Your task to perform on an android device: set an alarm Image 0: 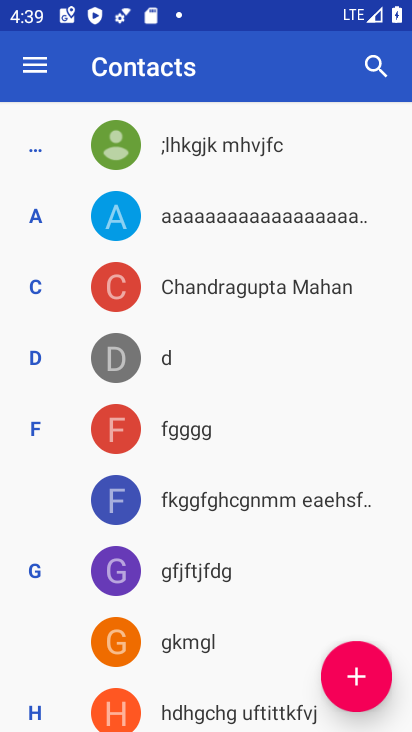
Step 0: press home button
Your task to perform on an android device: set an alarm Image 1: 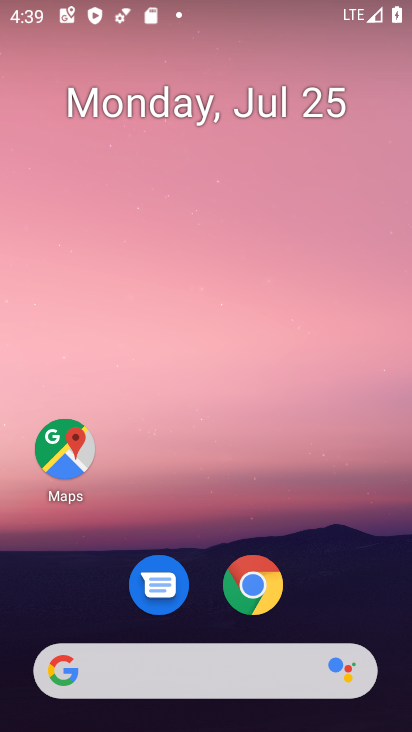
Step 1: drag from (325, 585) to (315, 68)
Your task to perform on an android device: set an alarm Image 2: 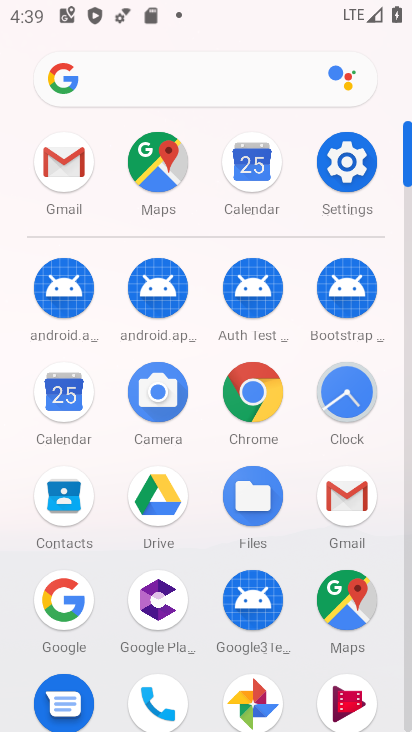
Step 2: click (332, 394)
Your task to perform on an android device: set an alarm Image 3: 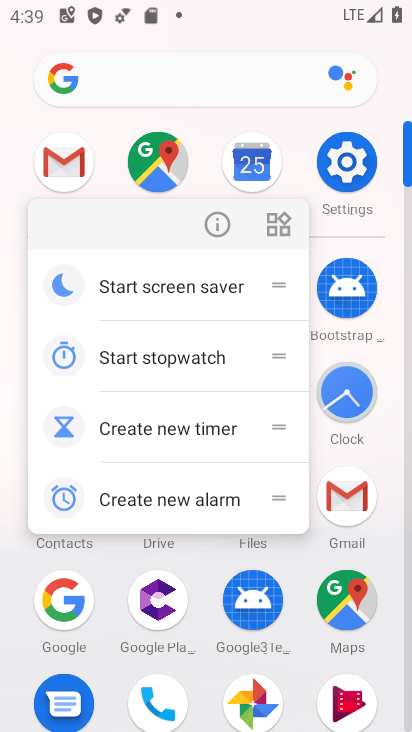
Step 3: click (338, 384)
Your task to perform on an android device: set an alarm Image 4: 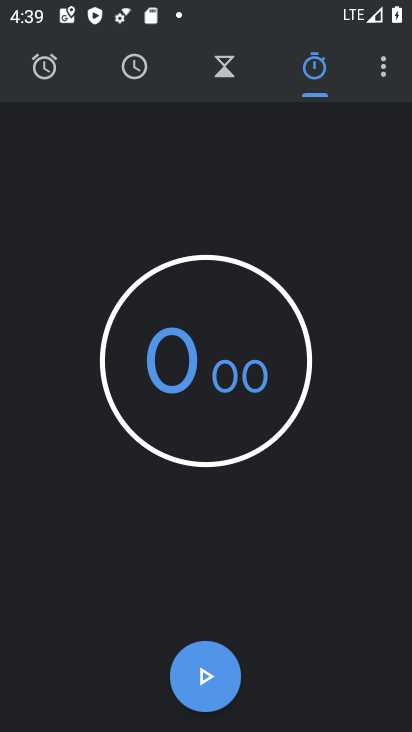
Step 4: click (46, 64)
Your task to perform on an android device: set an alarm Image 5: 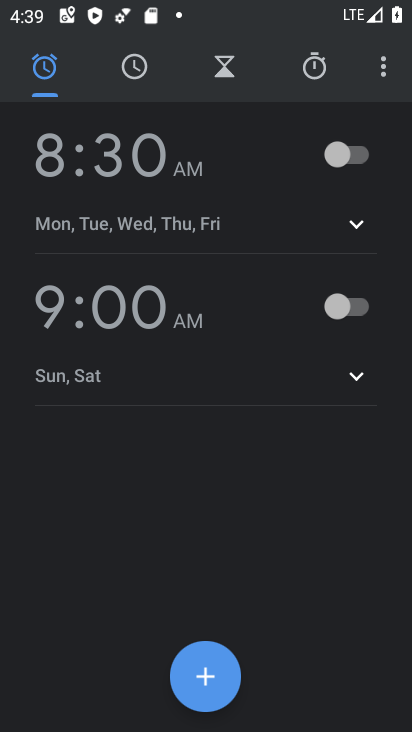
Step 5: click (209, 674)
Your task to perform on an android device: set an alarm Image 6: 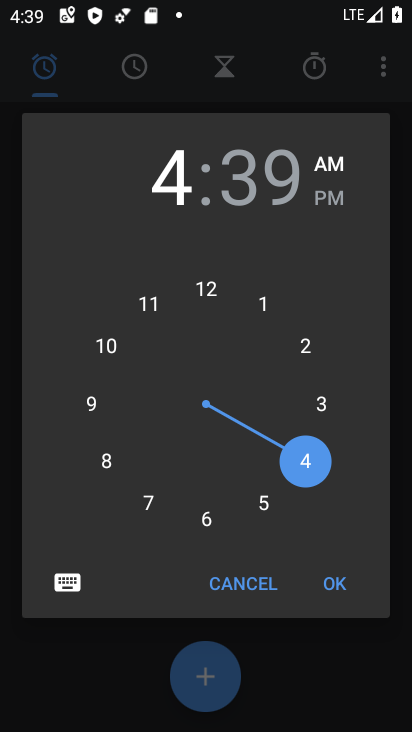
Step 6: click (255, 196)
Your task to perform on an android device: set an alarm Image 7: 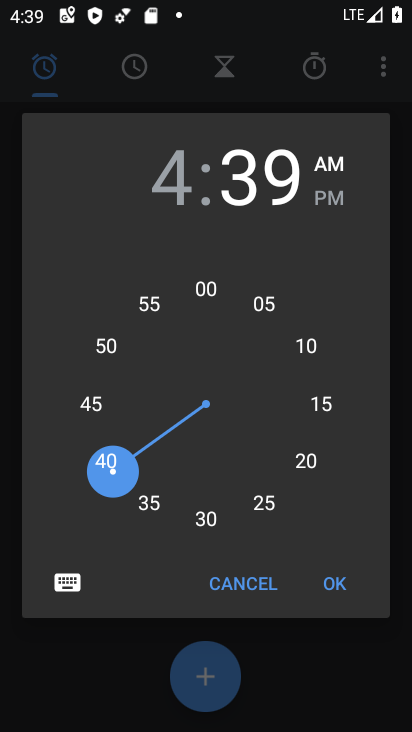
Step 7: click (211, 297)
Your task to perform on an android device: set an alarm Image 8: 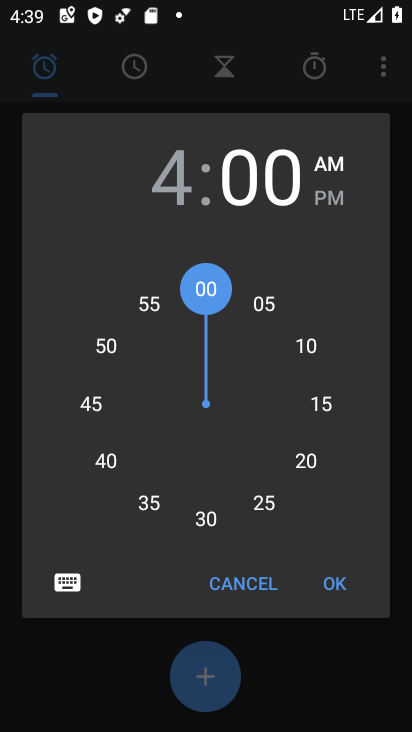
Step 8: click (342, 584)
Your task to perform on an android device: set an alarm Image 9: 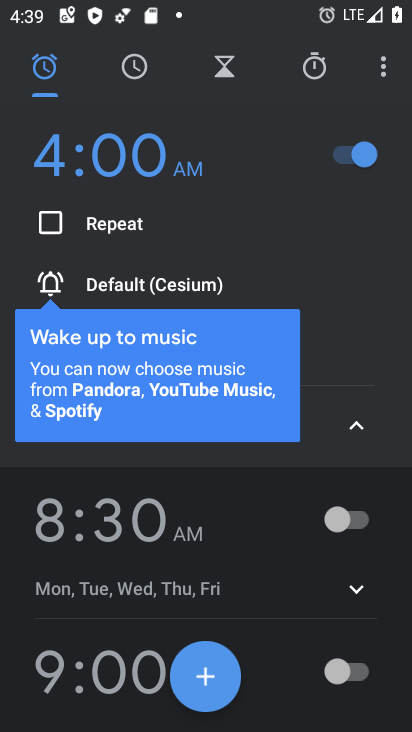
Step 9: task complete